Your task to perform on an android device: clear all cookies in the chrome app Image 0: 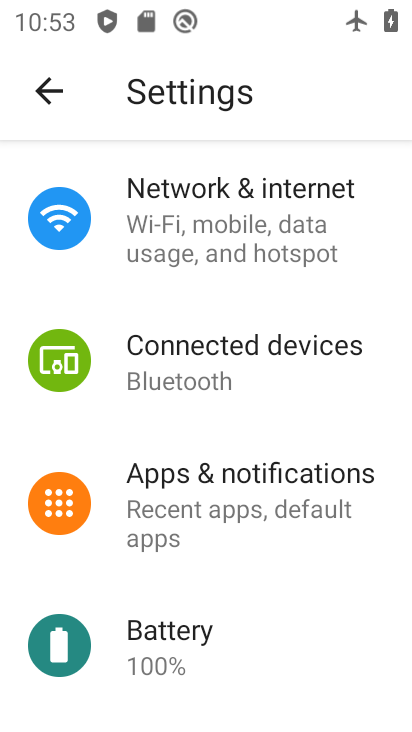
Step 0: press home button
Your task to perform on an android device: clear all cookies in the chrome app Image 1: 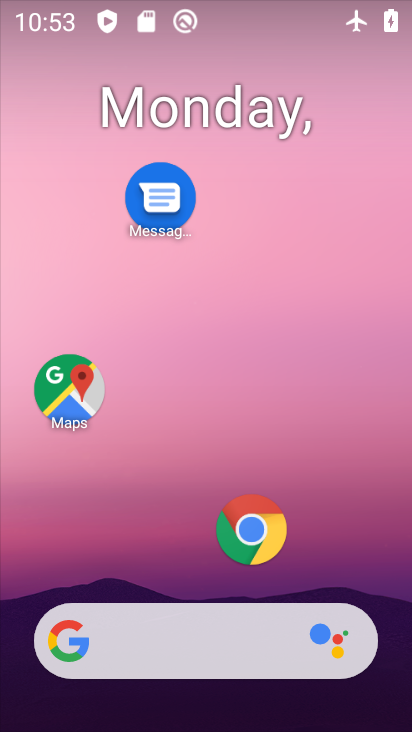
Step 1: drag from (152, 528) to (238, 99)
Your task to perform on an android device: clear all cookies in the chrome app Image 2: 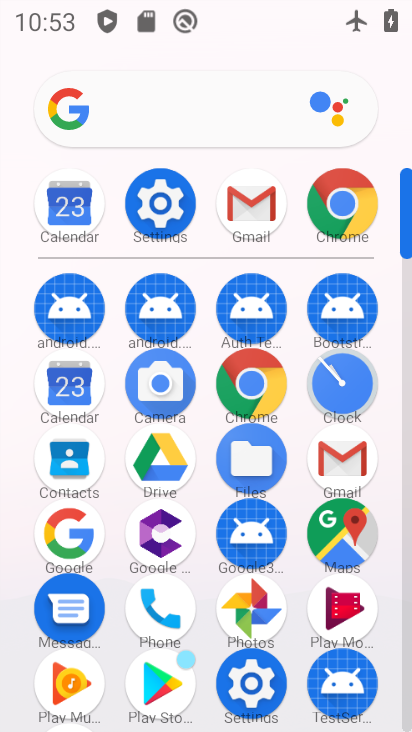
Step 2: click (264, 393)
Your task to perform on an android device: clear all cookies in the chrome app Image 3: 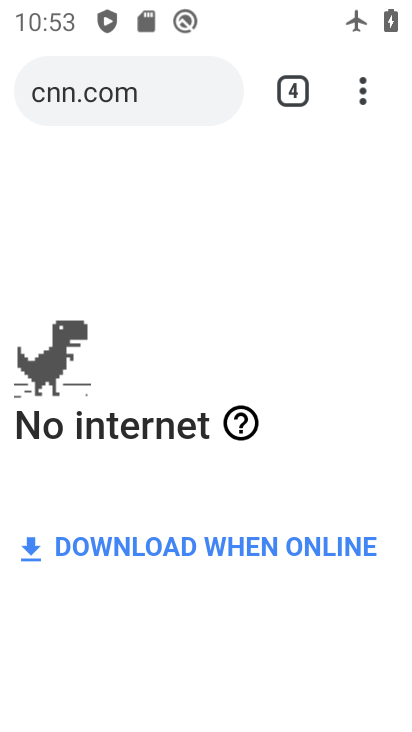
Step 3: click (360, 108)
Your task to perform on an android device: clear all cookies in the chrome app Image 4: 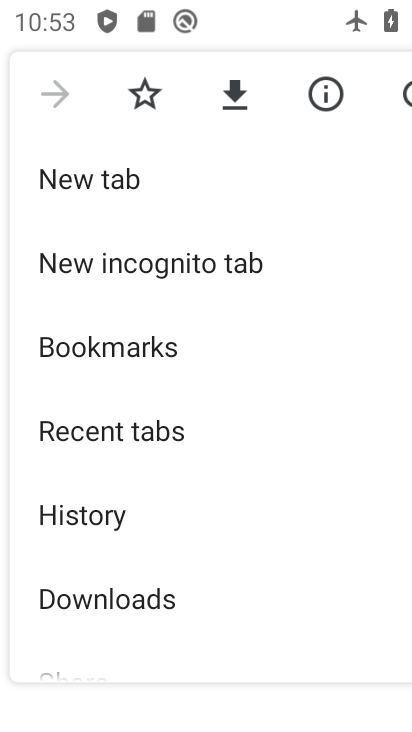
Step 4: drag from (161, 596) to (159, 324)
Your task to perform on an android device: clear all cookies in the chrome app Image 5: 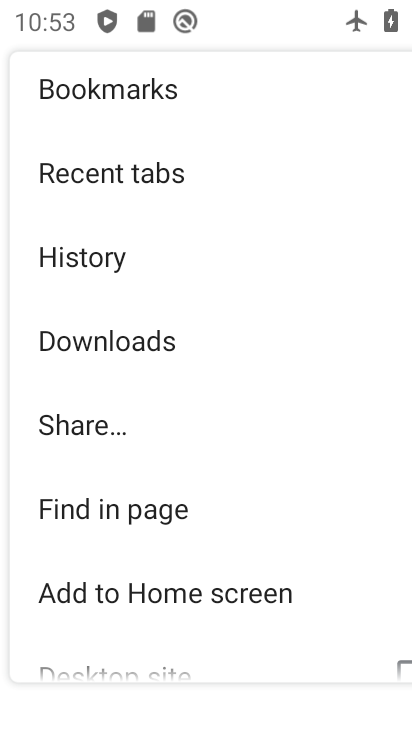
Step 5: drag from (182, 586) to (198, 265)
Your task to perform on an android device: clear all cookies in the chrome app Image 6: 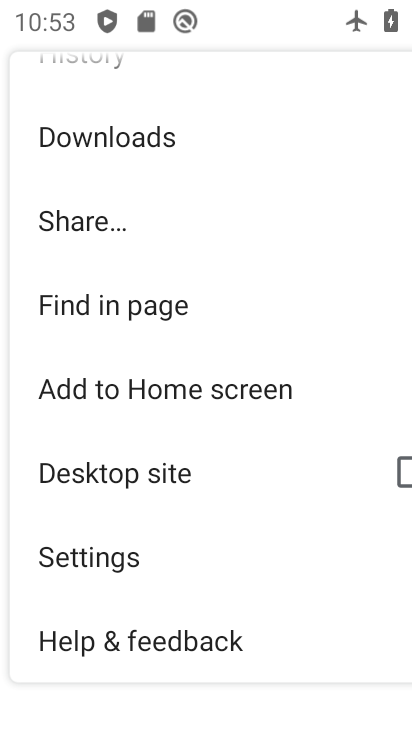
Step 6: click (199, 568)
Your task to perform on an android device: clear all cookies in the chrome app Image 7: 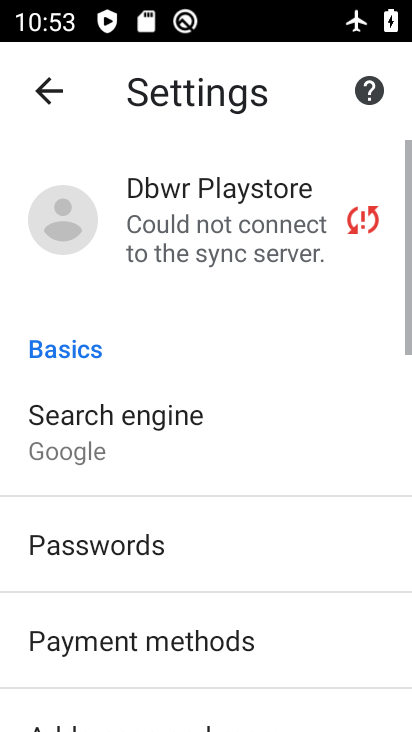
Step 7: drag from (198, 533) to (180, 255)
Your task to perform on an android device: clear all cookies in the chrome app Image 8: 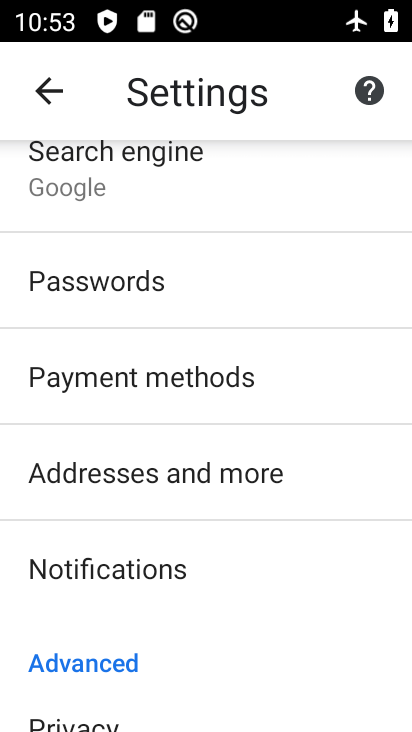
Step 8: click (52, 96)
Your task to perform on an android device: clear all cookies in the chrome app Image 9: 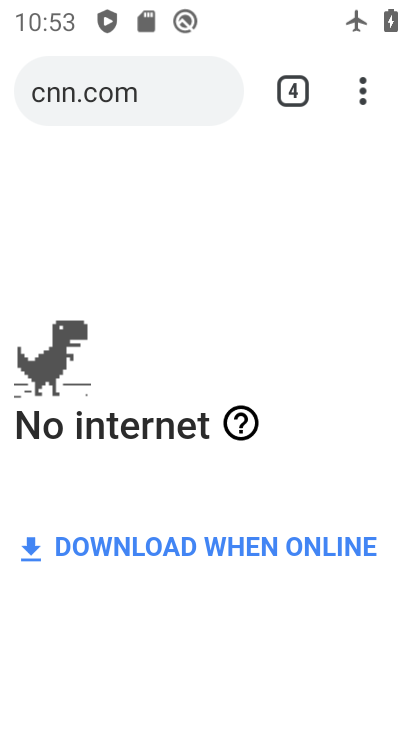
Step 9: click (370, 97)
Your task to perform on an android device: clear all cookies in the chrome app Image 10: 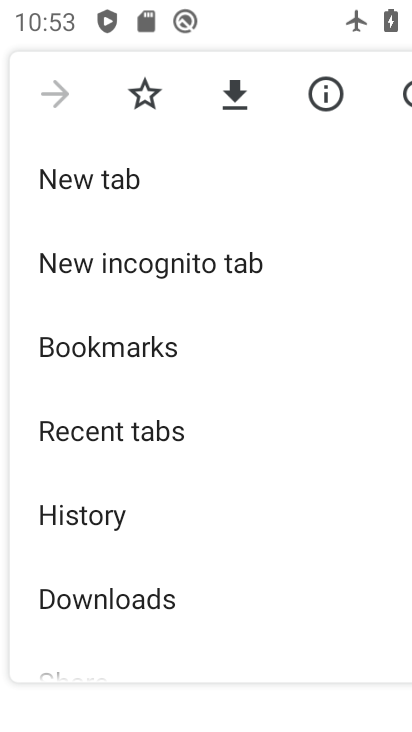
Step 10: click (175, 511)
Your task to perform on an android device: clear all cookies in the chrome app Image 11: 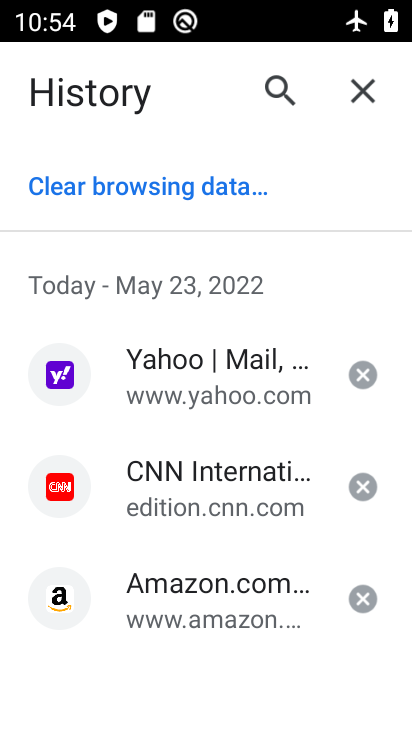
Step 11: click (179, 196)
Your task to perform on an android device: clear all cookies in the chrome app Image 12: 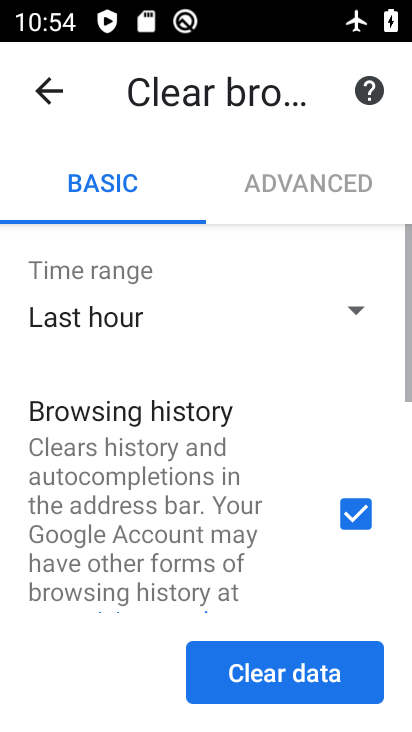
Step 12: drag from (218, 506) to (189, 88)
Your task to perform on an android device: clear all cookies in the chrome app Image 13: 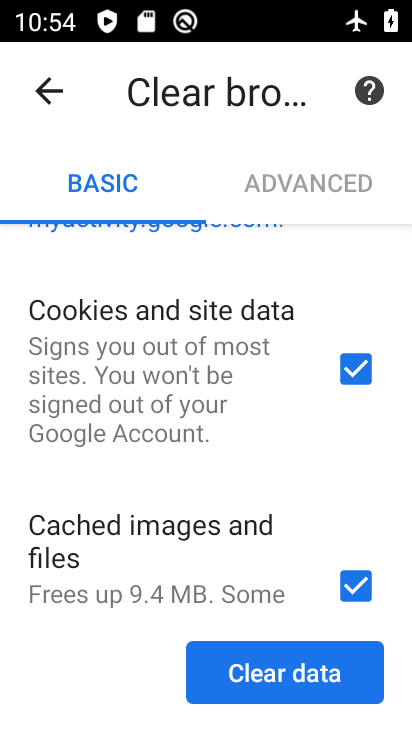
Step 13: drag from (282, 565) to (248, 363)
Your task to perform on an android device: clear all cookies in the chrome app Image 14: 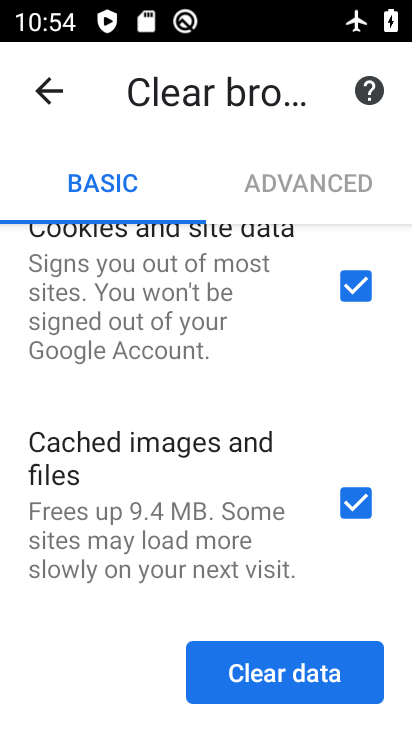
Step 14: click (280, 677)
Your task to perform on an android device: clear all cookies in the chrome app Image 15: 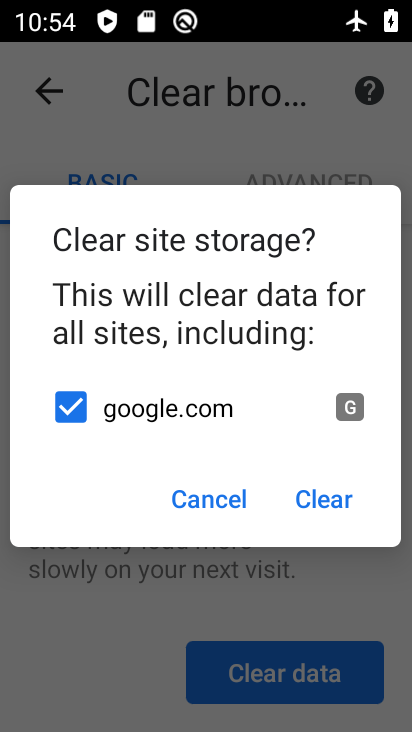
Step 15: click (327, 498)
Your task to perform on an android device: clear all cookies in the chrome app Image 16: 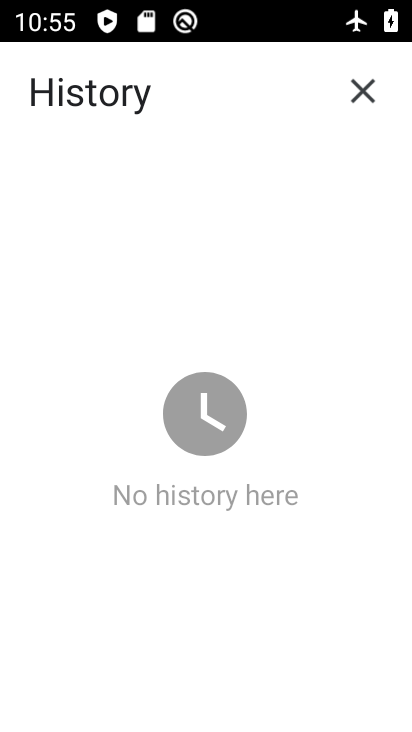
Step 16: task complete